Your task to perform on an android device: Search for nike dri-fit shirts on Nike Image 0: 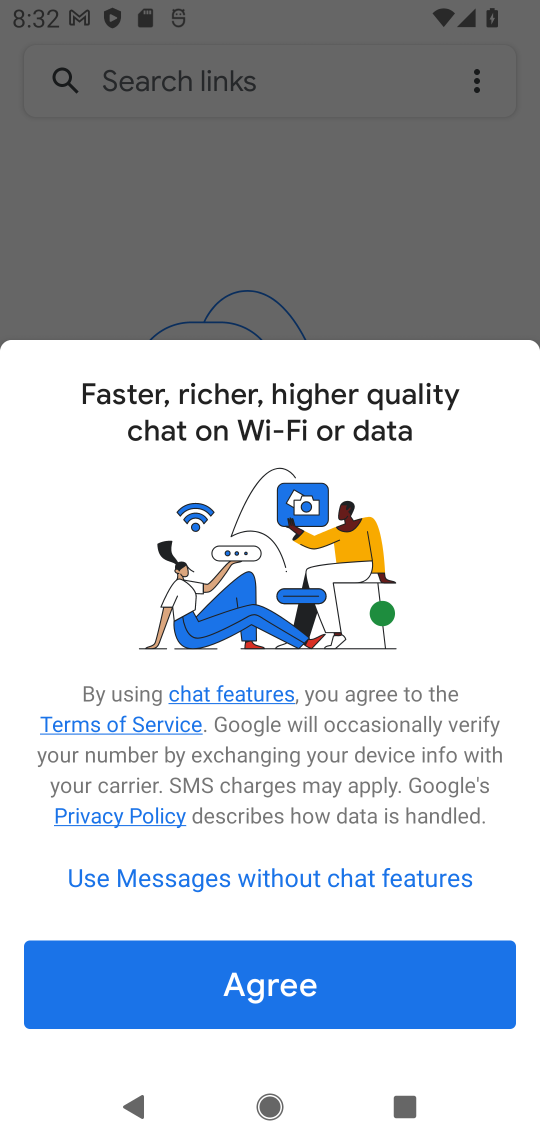
Step 0: press home button
Your task to perform on an android device: Search for nike dri-fit shirts on Nike Image 1: 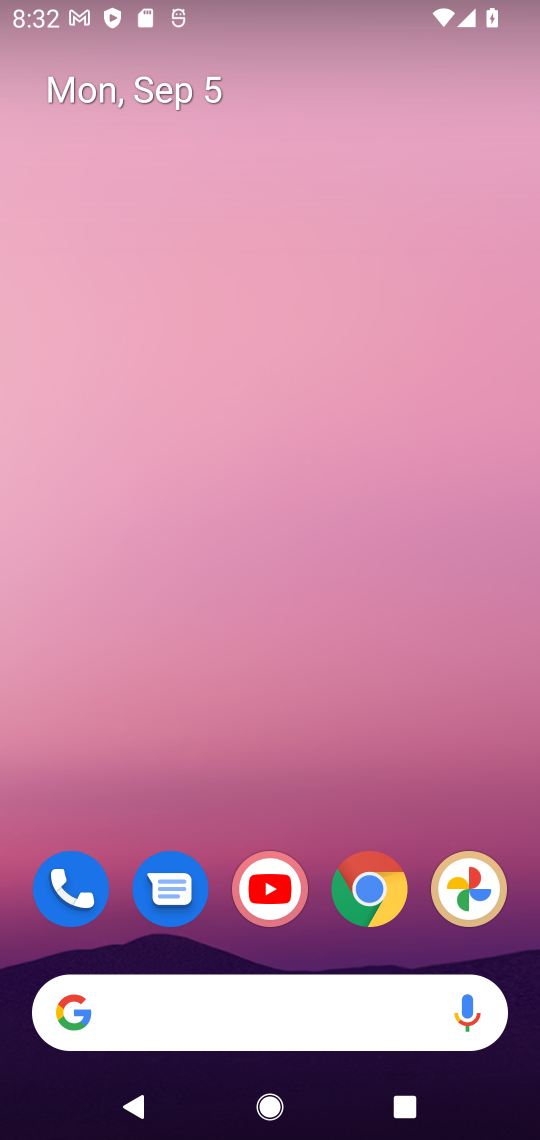
Step 1: click (266, 992)
Your task to perform on an android device: Search for nike dri-fit shirts on Nike Image 2: 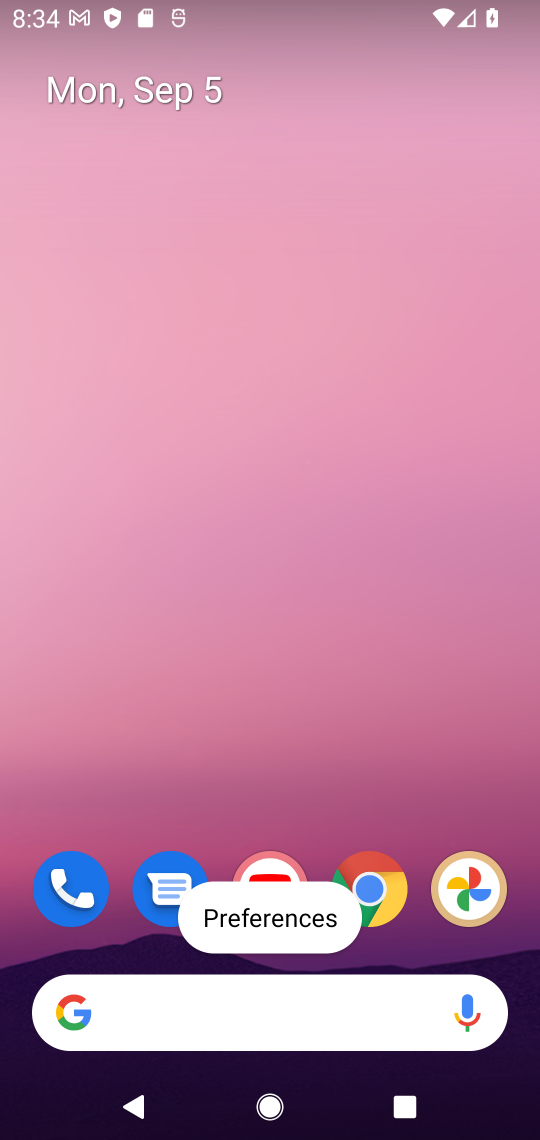
Step 2: click (160, 1005)
Your task to perform on an android device: Search for nike dri-fit shirts on Nike Image 3: 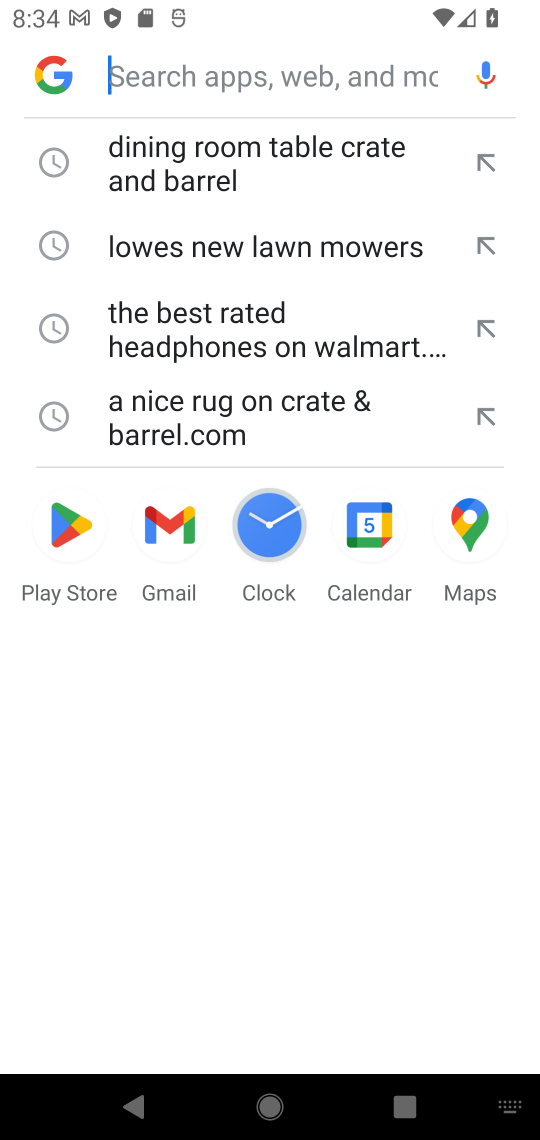
Step 3: type "nike dri-fit shirts on Nike"
Your task to perform on an android device: Search for nike dri-fit shirts on Nike Image 4: 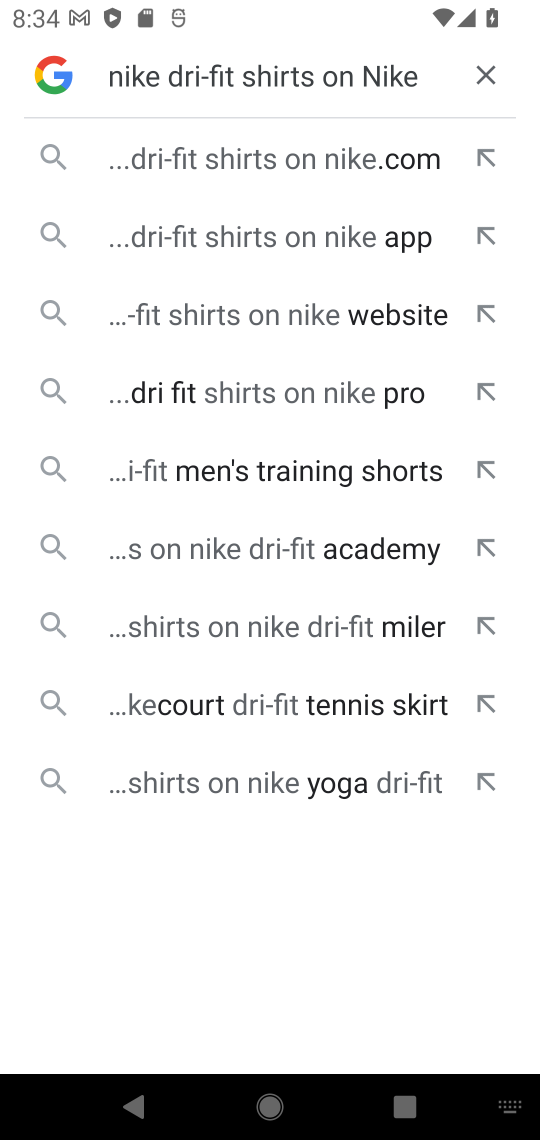
Step 4: click (326, 168)
Your task to perform on an android device: Search for nike dri-fit shirts on Nike Image 5: 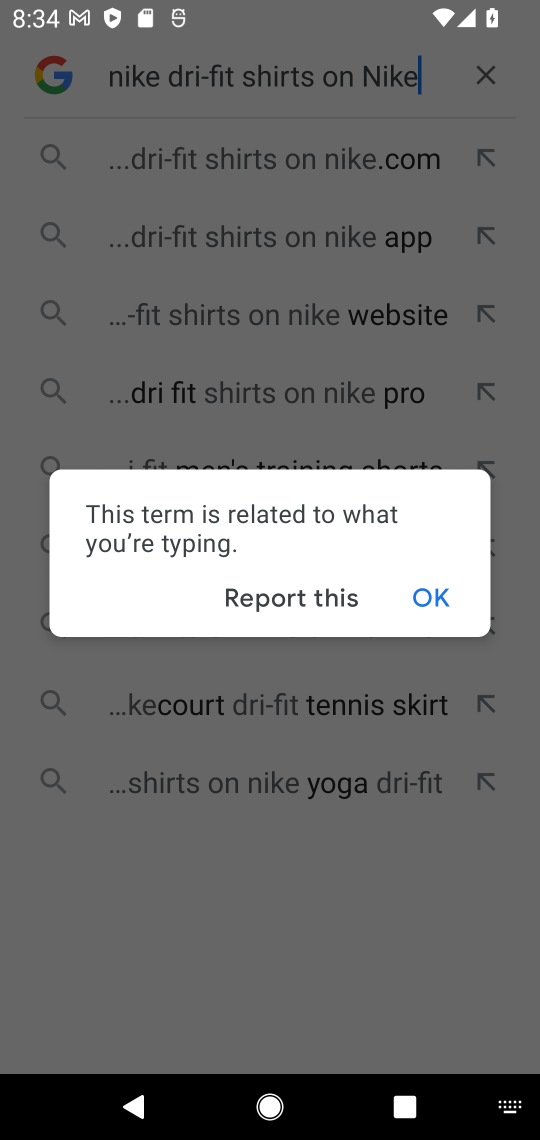
Step 5: click (419, 605)
Your task to perform on an android device: Search for nike dri-fit shirts on Nike Image 6: 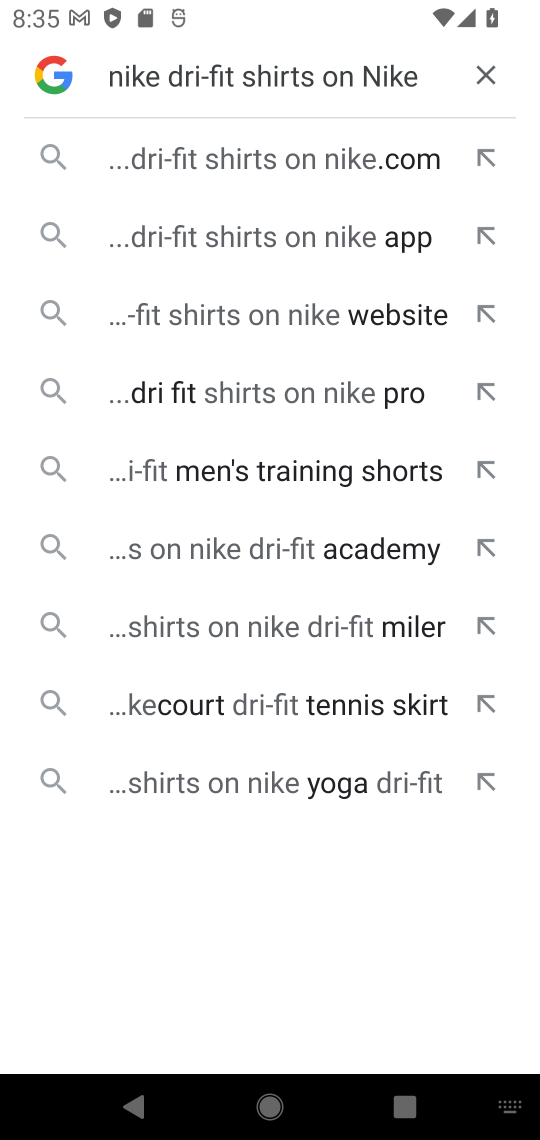
Step 6: click (235, 155)
Your task to perform on an android device: Search for nike dri-fit shirts on Nike Image 7: 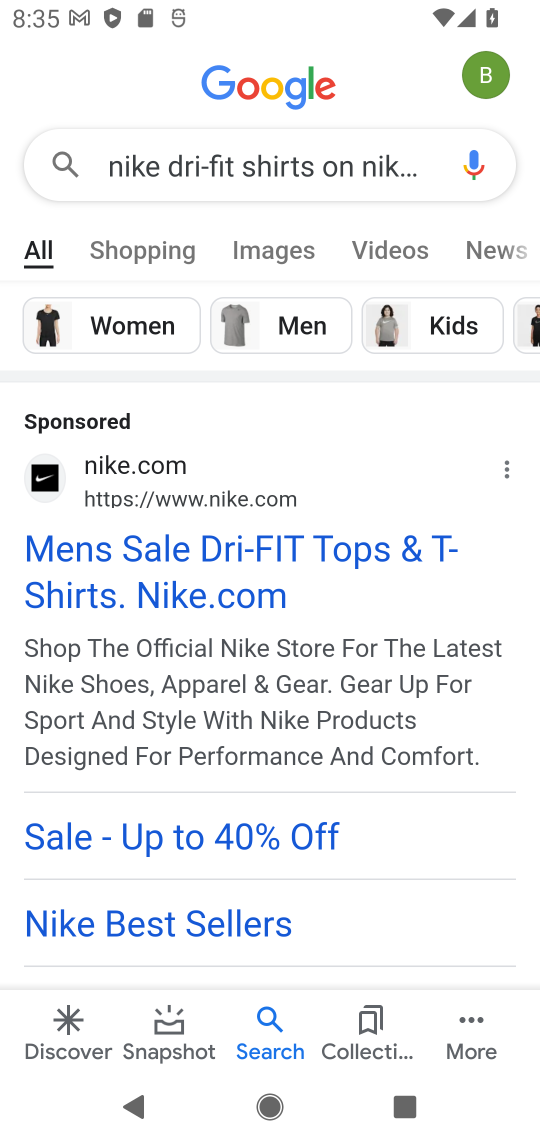
Step 7: task complete